Your task to perform on an android device: Open Amazon Image 0: 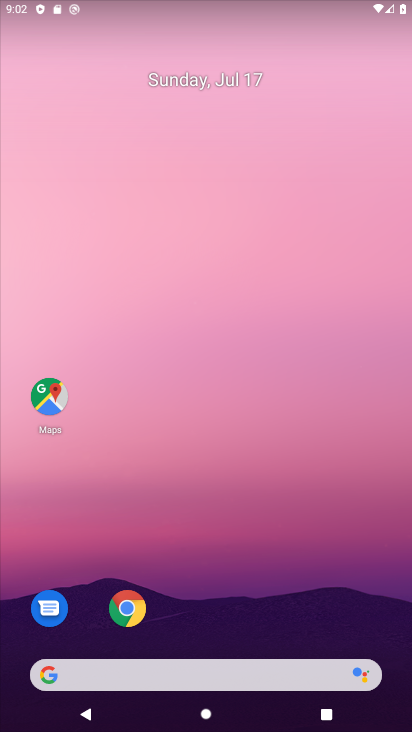
Step 0: drag from (282, 384) to (35, 207)
Your task to perform on an android device: Open Amazon Image 1: 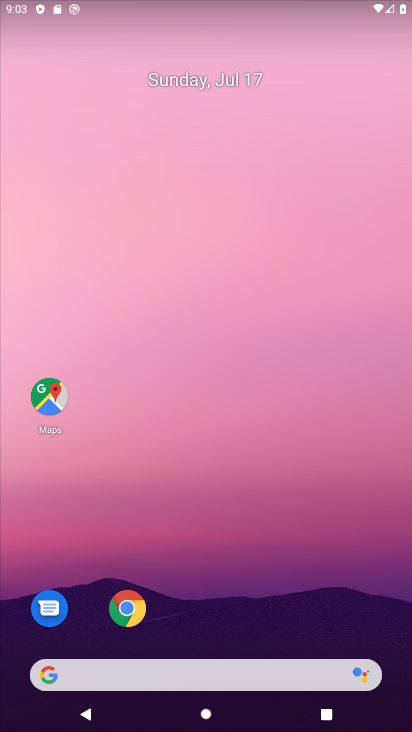
Step 1: drag from (272, 570) to (220, 34)
Your task to perform on an android device: Open Amazon Image 2: 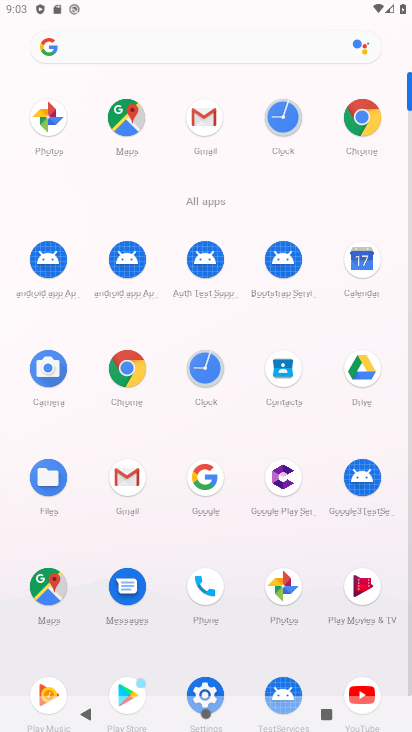
Step 2: click (369, 111)
Your task to perform on an android device: Open Amazon Image 3: 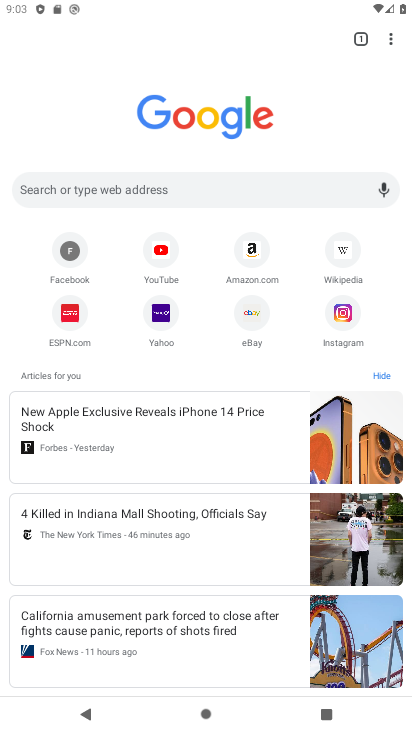
Step 3: click (237, 256)
Your task to perform on an android device: Open Amazon Image 4: 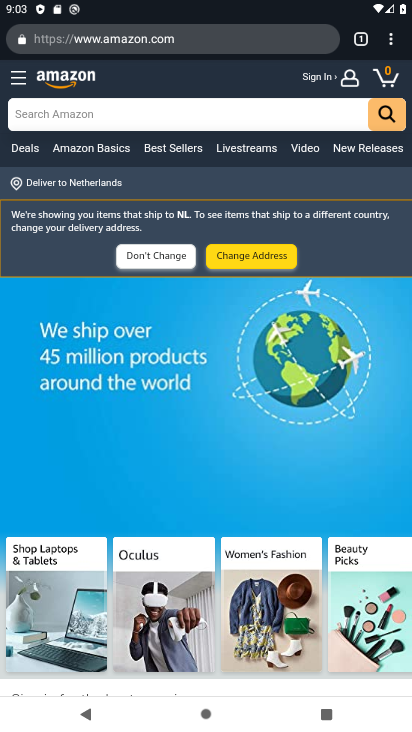
Step 4: task complete